Your task to perform on an android device: open a bookmark in the chrome app Image 0: 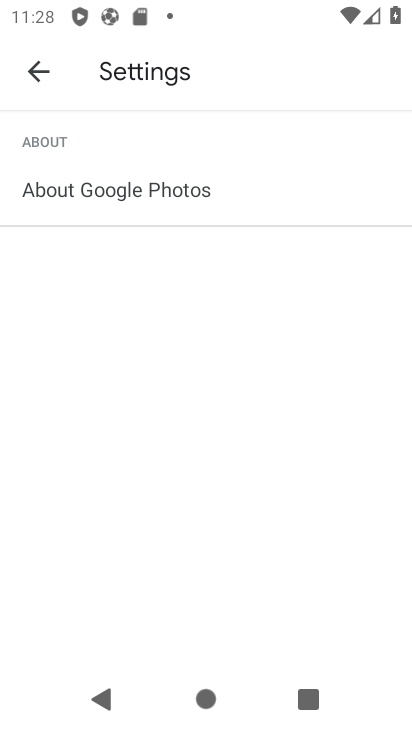
Step 0: press home button
Your task to perform on an android device: open a bookmark in the chrome app Image 1: 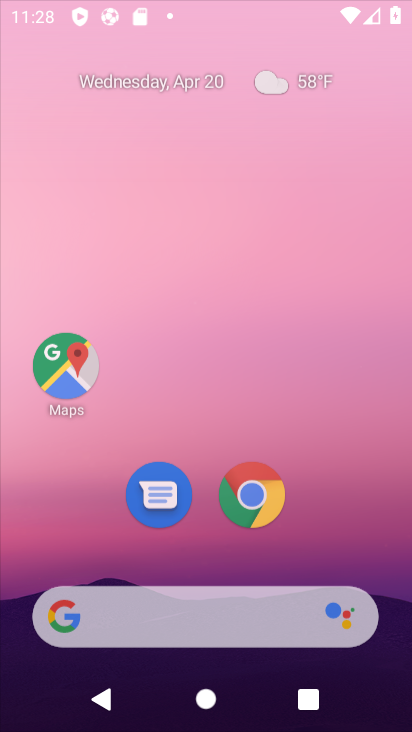
Step 1: press home button
Your task to perform on an android device: open a bookmark in the chrome app Image 2: 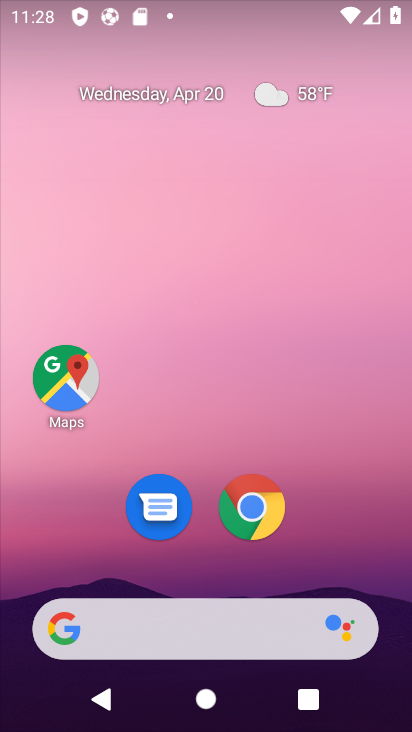
Step 2: drag from (271, 721) to (187, 51)
Your task to perform on an android device: open a bookmark in the chrome app Image 3: 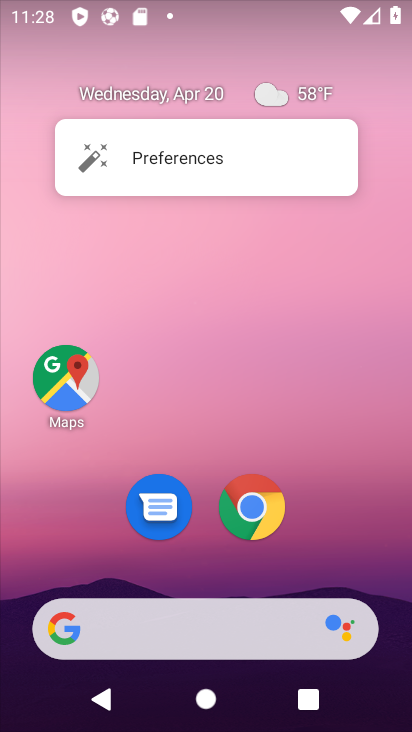
Step 3: drag from (320, 422) to (141, 125)
Your task to perform on an android device: open a bookmark in the chrome app Image 4: 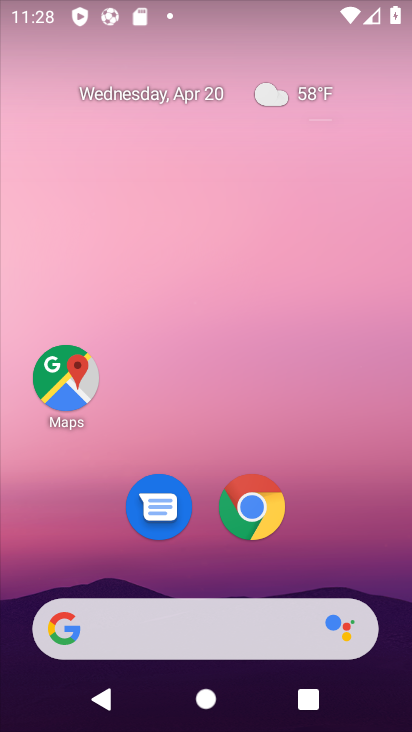
Step 4: drag from (379, 579) to (223, 226)
Your task to perform on an android device: open a bookmark in the chrome app Image 5: 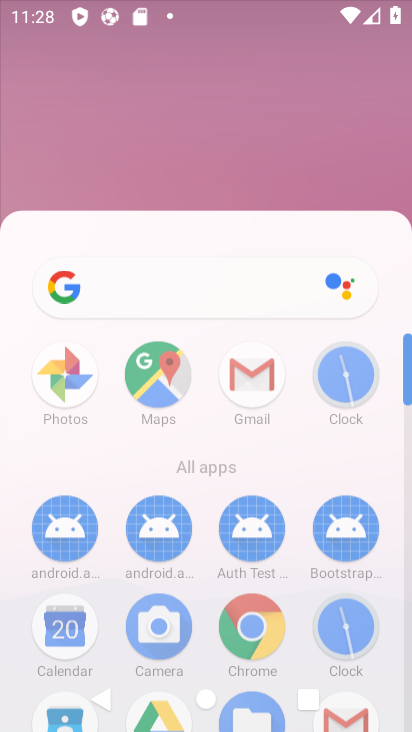
Step 5: drag from (201, 460) to (221, 185)
Your task to perform on an android device: open a bookmark in the chrome app Image 6: 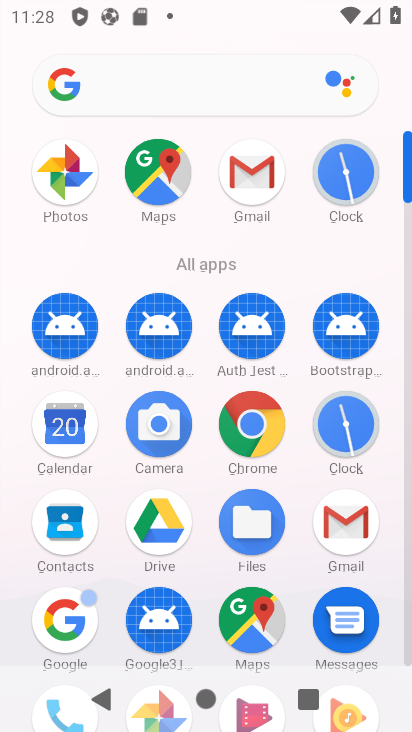
Step 6: click (254, 443)
Your task to perform on an android device: open a bookmark in the chrome app Image 7: 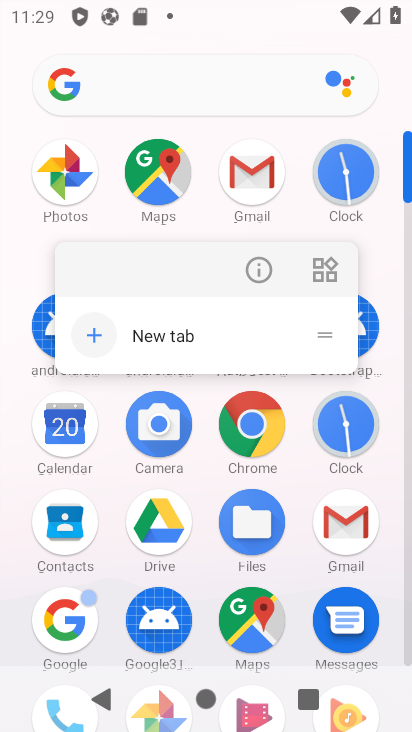
Step 7: click (248, 441)
Your task to perform on an android device: open a bookmark in the chrome app Image 8: 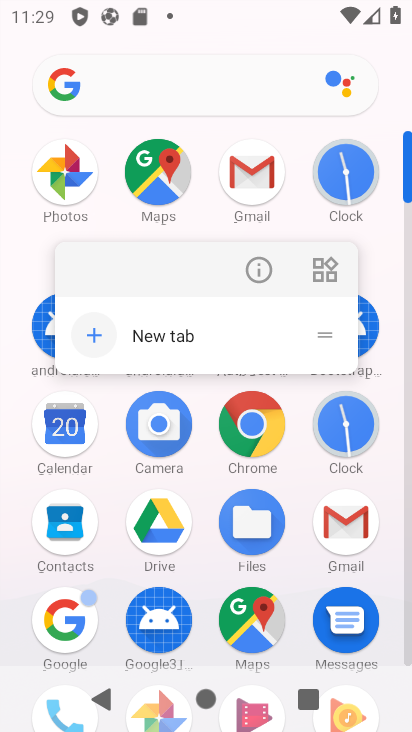
Step 8: click (248, 439)
Your task to perform on an android device: open a bookmark in the chrome app Image 9: 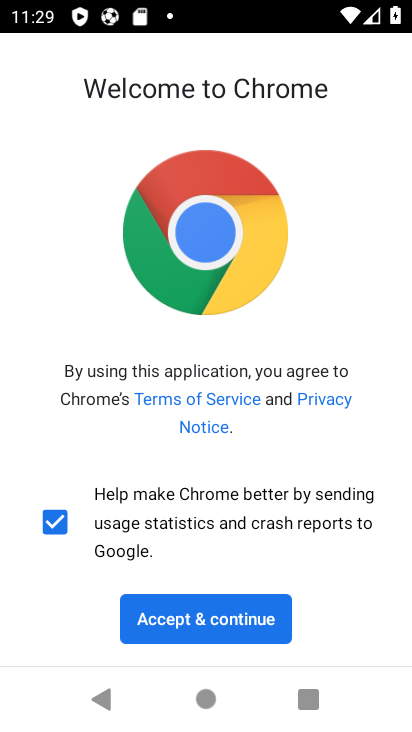
Step 9: click (233, 619)
Your task to perform on an android device: open a bookmark in the chrome app Image 10: 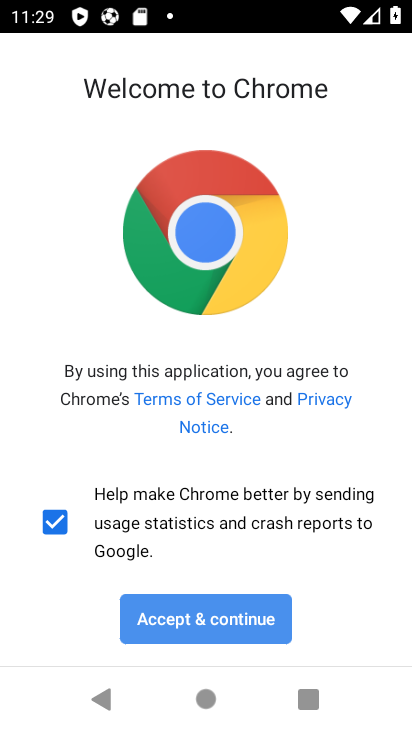
Step 10: click (229, 619)
Your task to perform on an android device: open a bookmark in the chrome app Image 11: 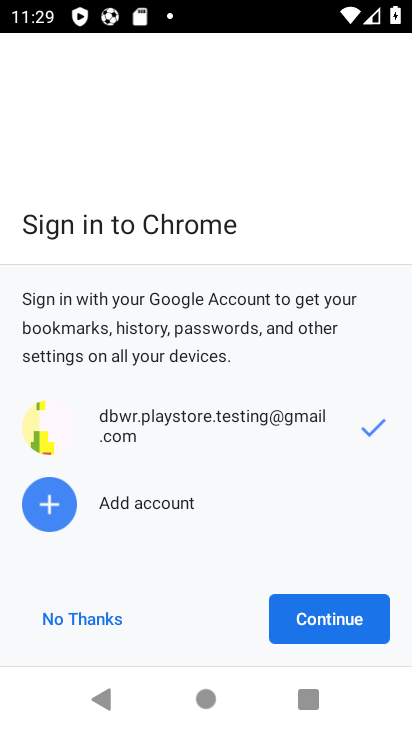
Step 11: click (356, 626)
Your task to perform on an android device: open a bookmark in the chrome app Image 12: 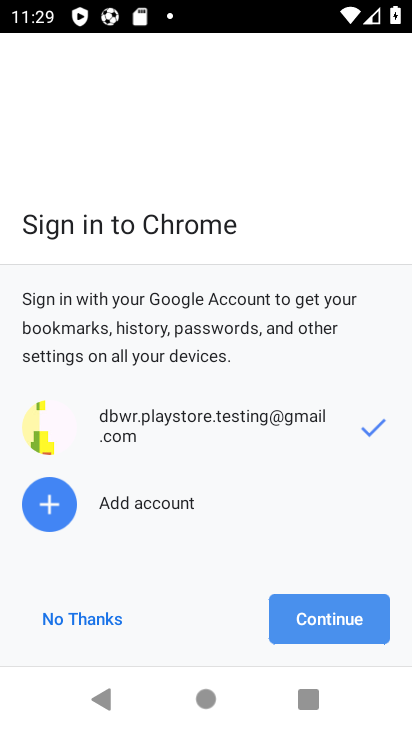
Step 12: click (344, 618)
Your task to perform on an android device: open a bookmark in the chrome app Image 13: 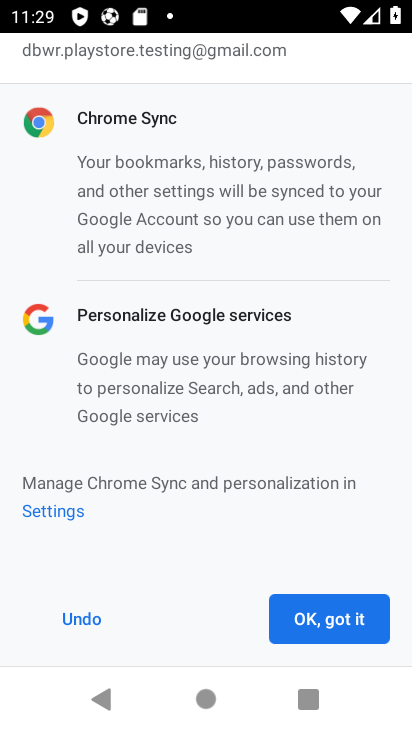
Step 13: click (344, 609)
Your task to perform on an android device: open a bookmark in the chrome app Image 14: 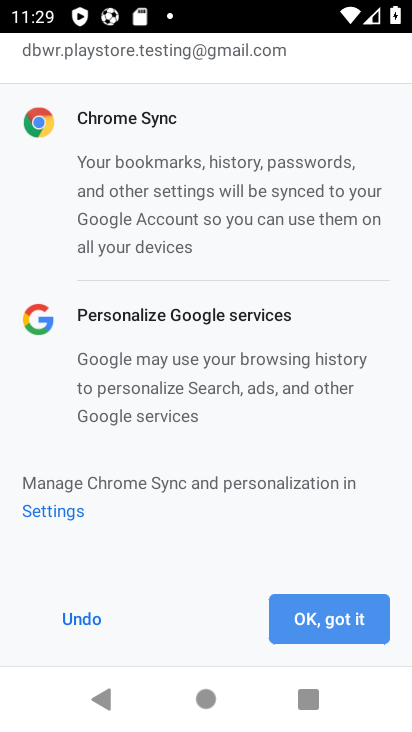
Step 14: click (336, 619)
Your task to perform on an android device: open a bookmark in the chrome app Image 15: 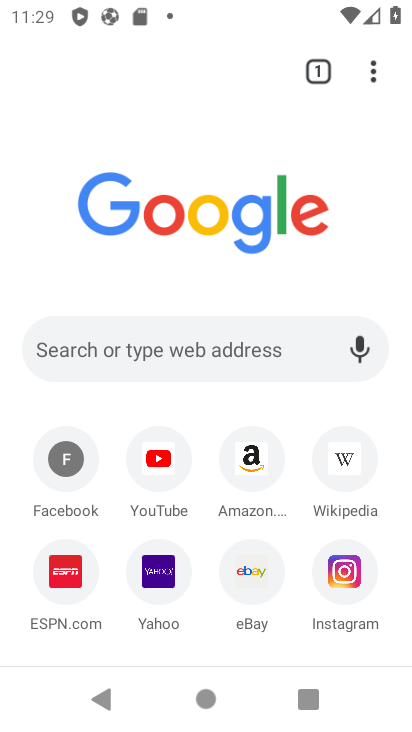
Step 15: drag from (373, 76) to (106, 258)
Your task to perform on an android device: open a bookmark in the chrome app Image 16: 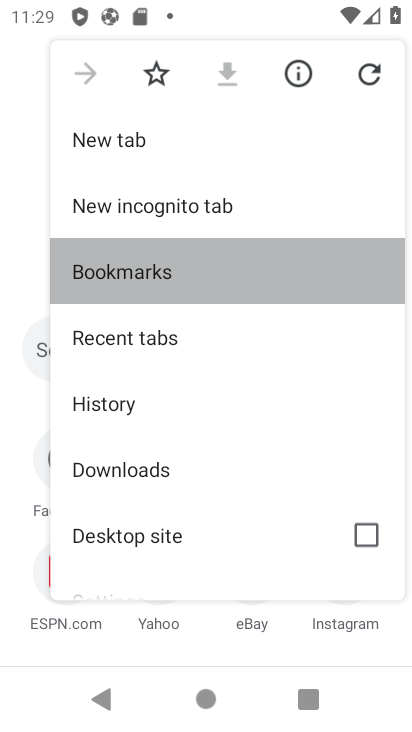
Step 16: click (109, 265)
Your task to perform on an android device: open a bookmark in the chrome app Image 17: 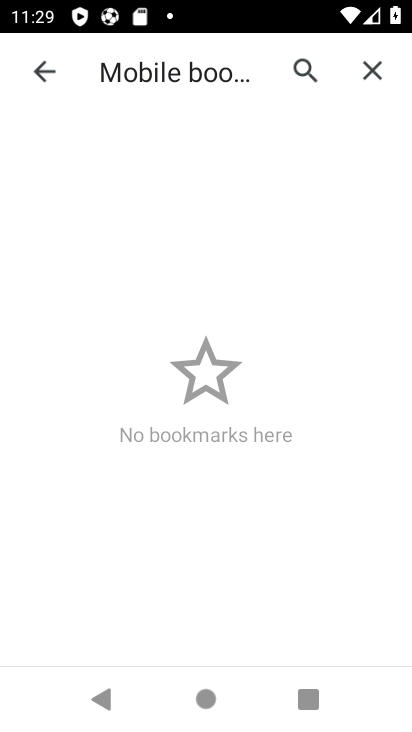
Step 17: task complete